Your task to perform on an android device: Do I have any events tomorrow? Image 0: 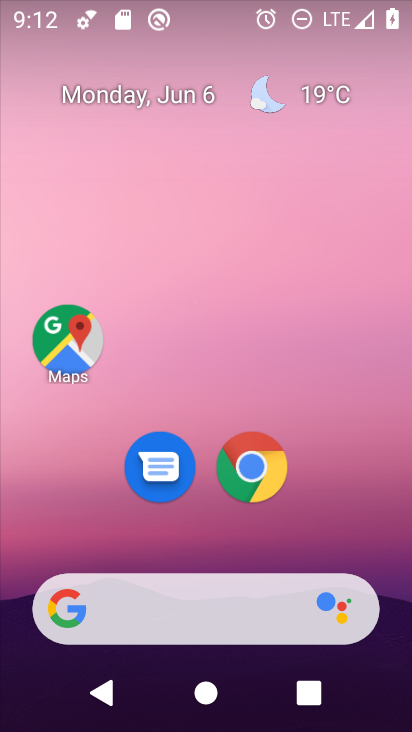
Step 0: drag from (348, 540) to (341, 66)
Your task to perform on an android device: Do I have any events tomorrow? Image 1: 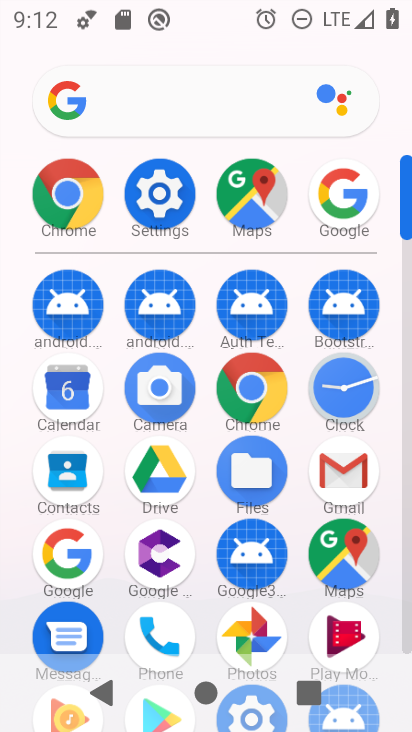
Step 1: click (72, 393)
Your task to perform on an android device: Do I have any events tomorrow? Image 2: 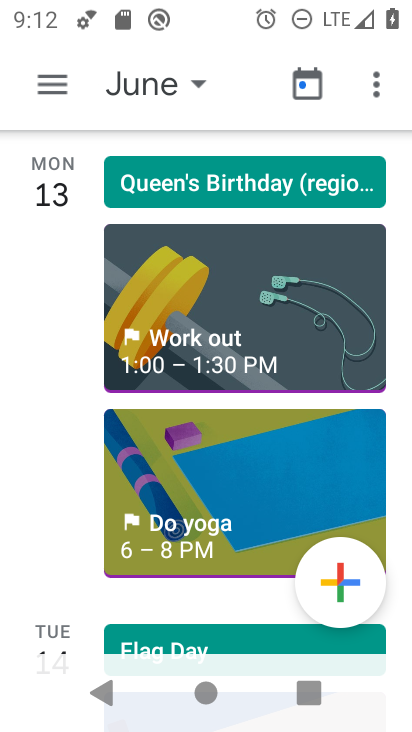
Step 2: click (202, 79)
Your task to perform on an android device: Do I have any events tomorrow? Image 3: 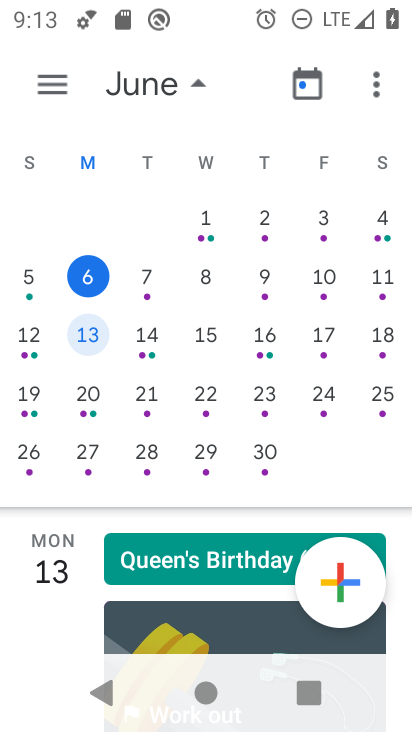
Step 3: click (207, 274)
Your task to perform on an android device: Do I have any events tomorrow? Image 4: 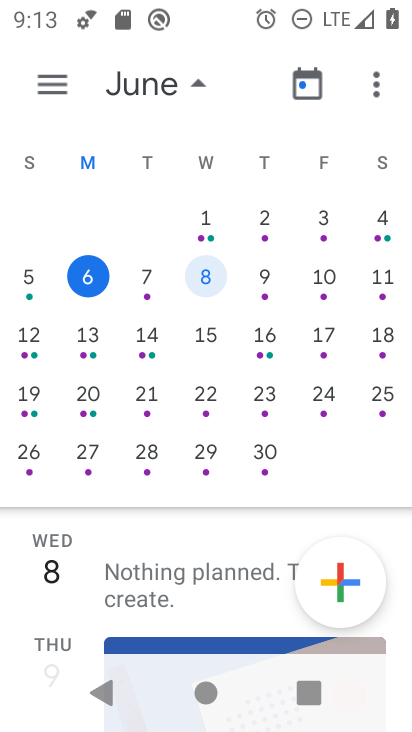
Step 4: task complete